Your task to perform on an android device: open app "Microsoft Outlook" Image 0: 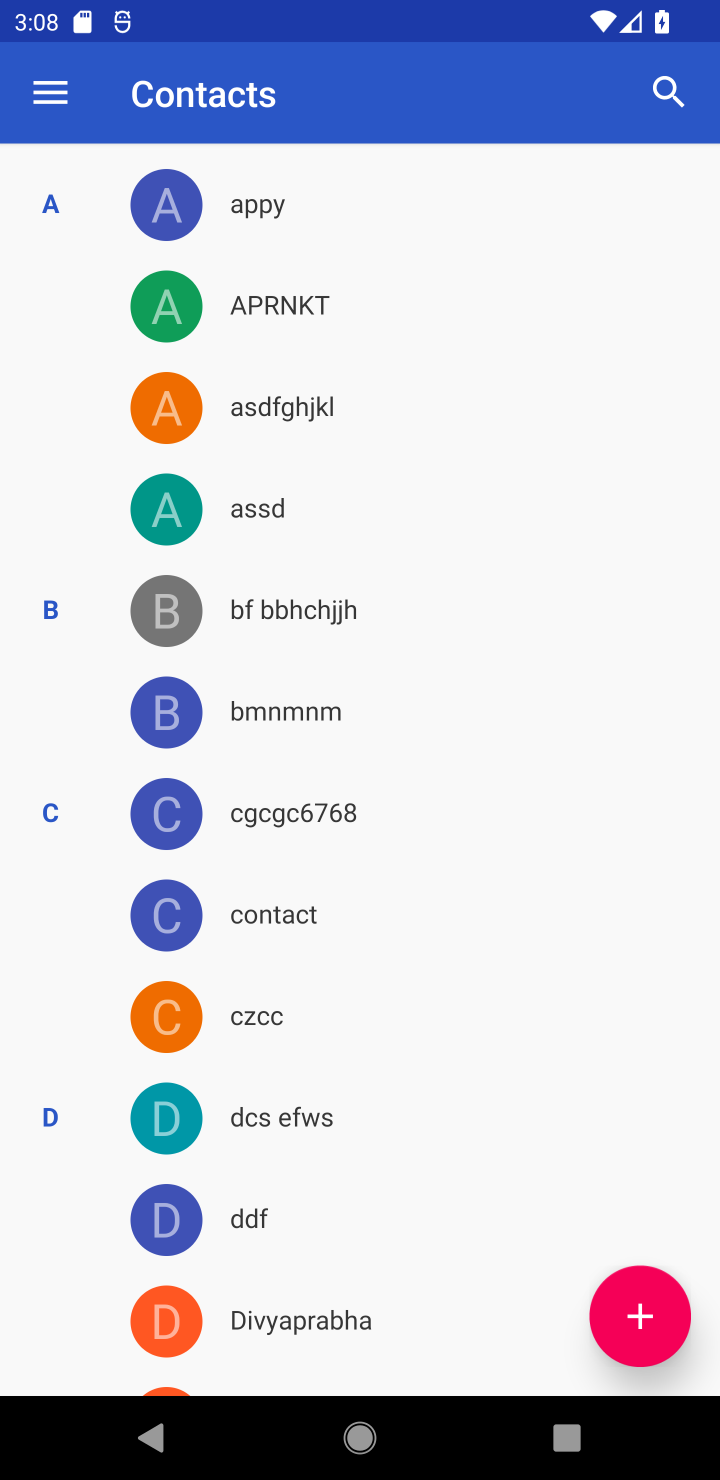
Step 0: press home button
Your task to perform on an android device: open app "Microsoft Outlook" Image 1: 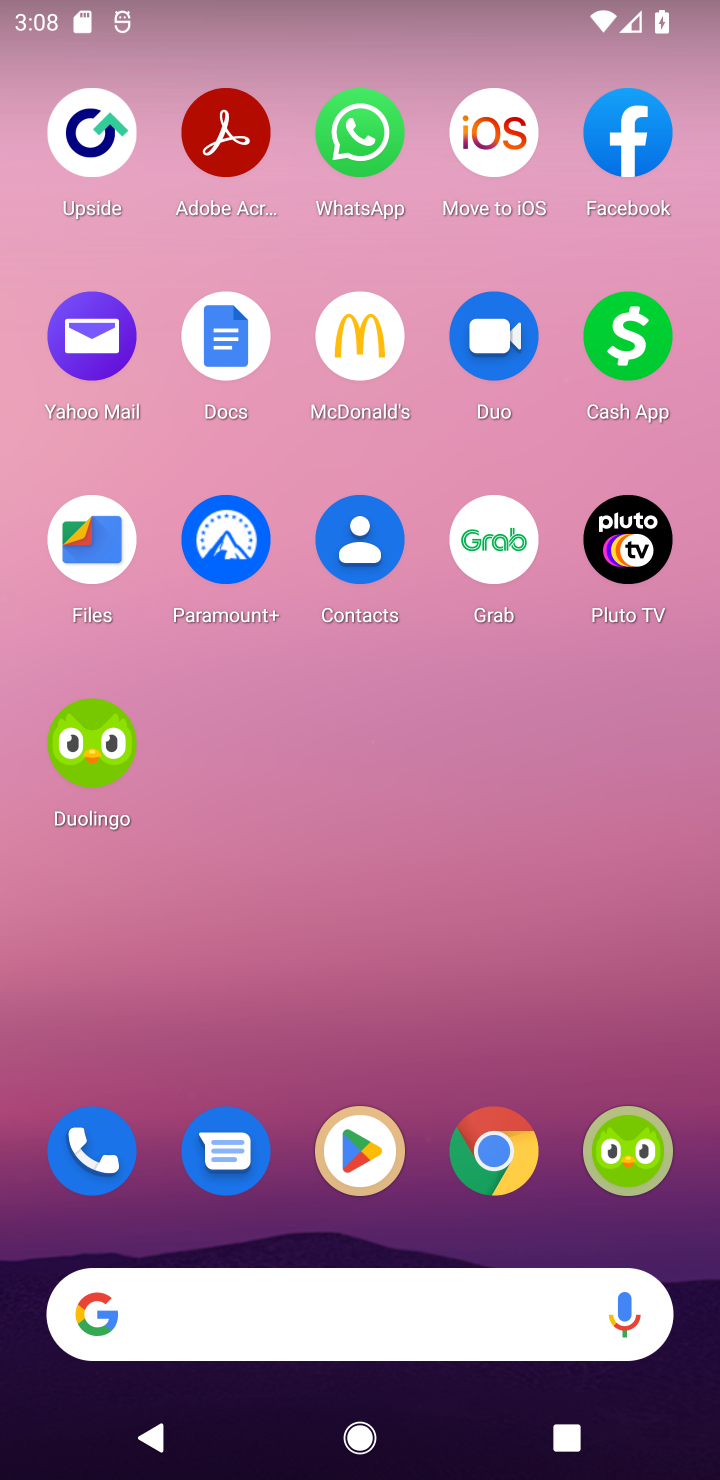
Step 1: click (362, 1201)
Your task to perform on an android device: open app "Microsoft Outlook" Image 2: 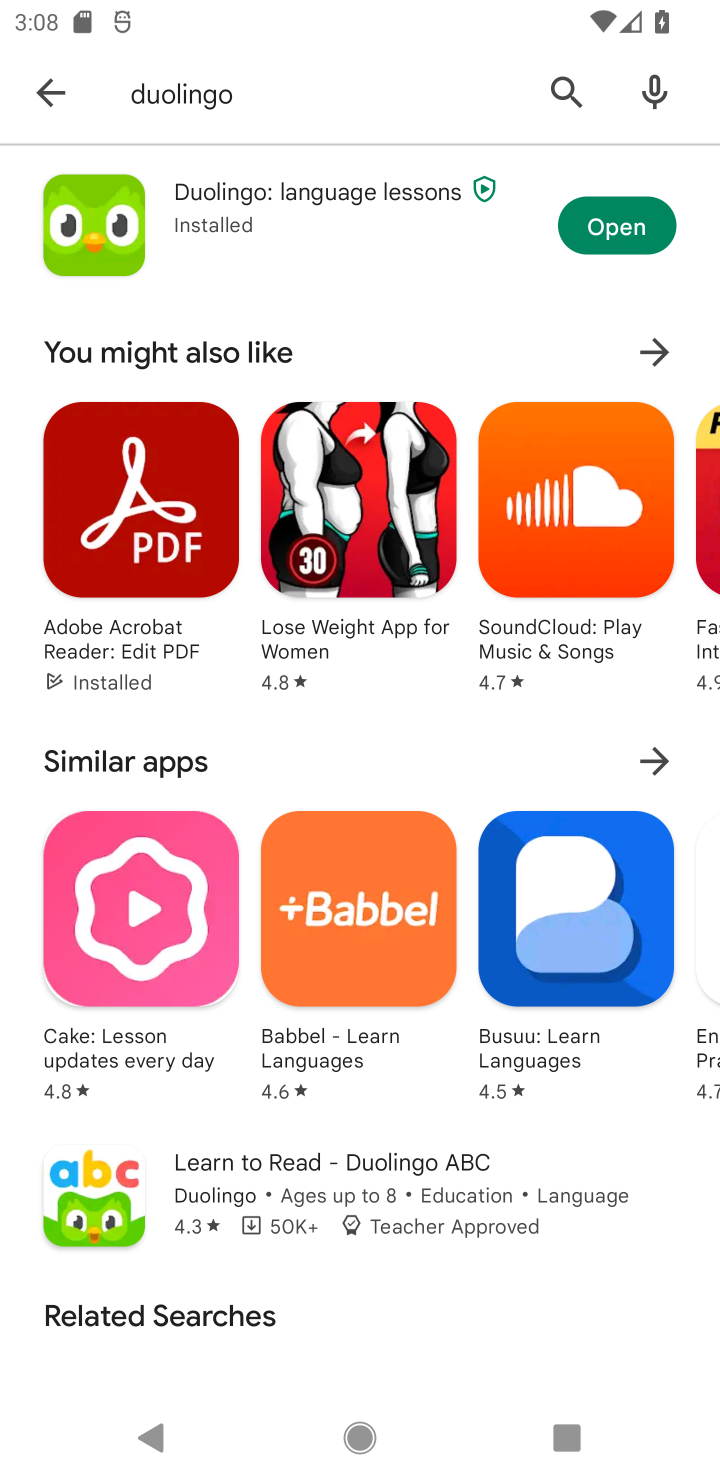
Step 2: click (572, 109)
Your task to perform on an android device: open app "Microsoft Outlook" Image 3: 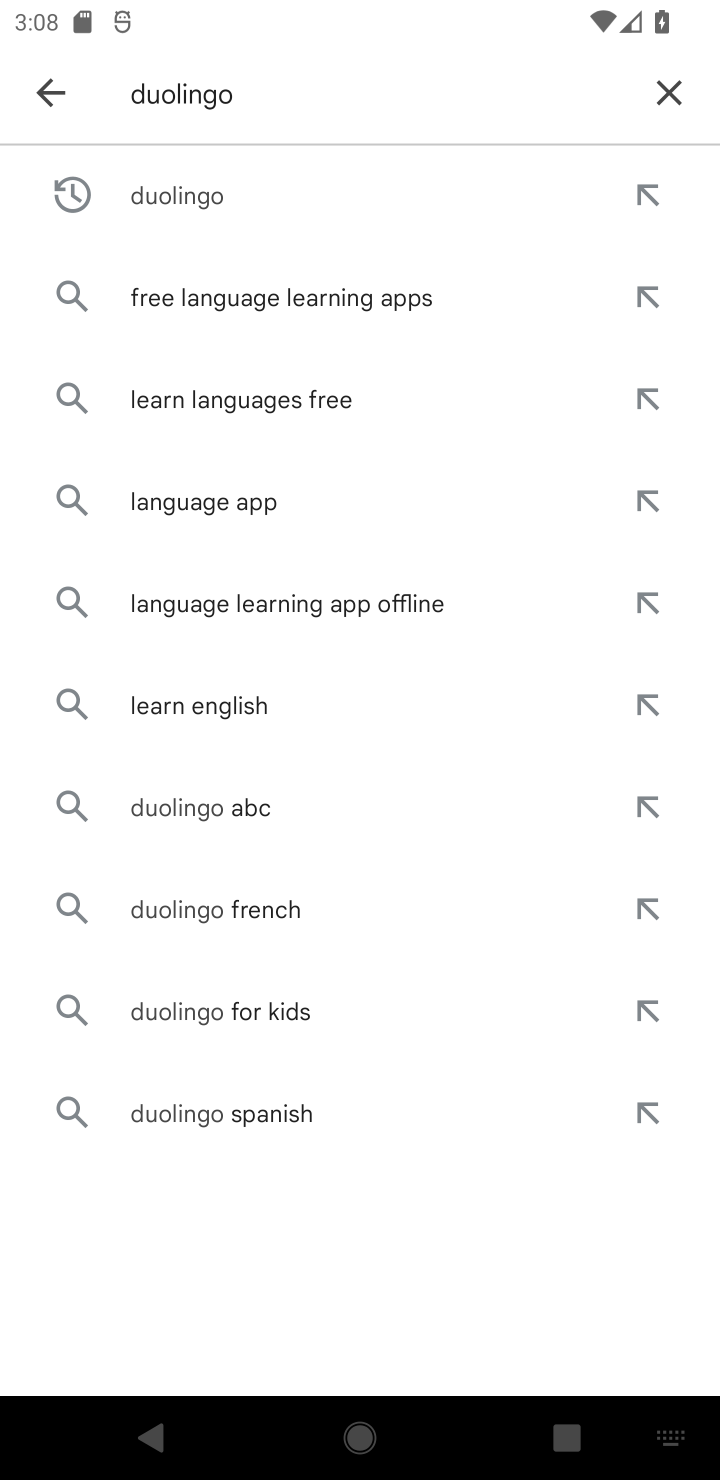
Step 3: click (656, 101)
Your task to perform on an android device: open app "Microsoft Outlook" Image 4: 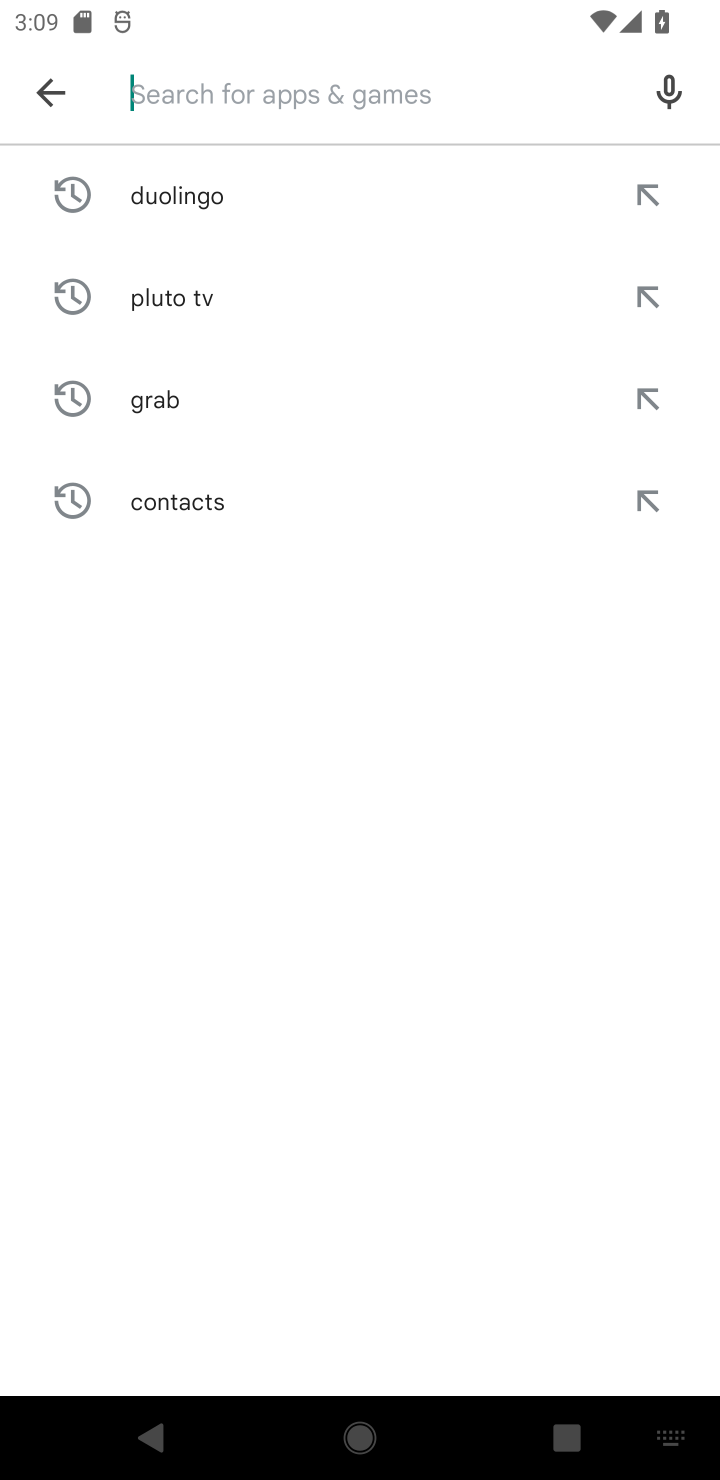
Step 4: type "microsost"
Your task to perform on an android device: open app "Microsoft Outlook" Image 5: 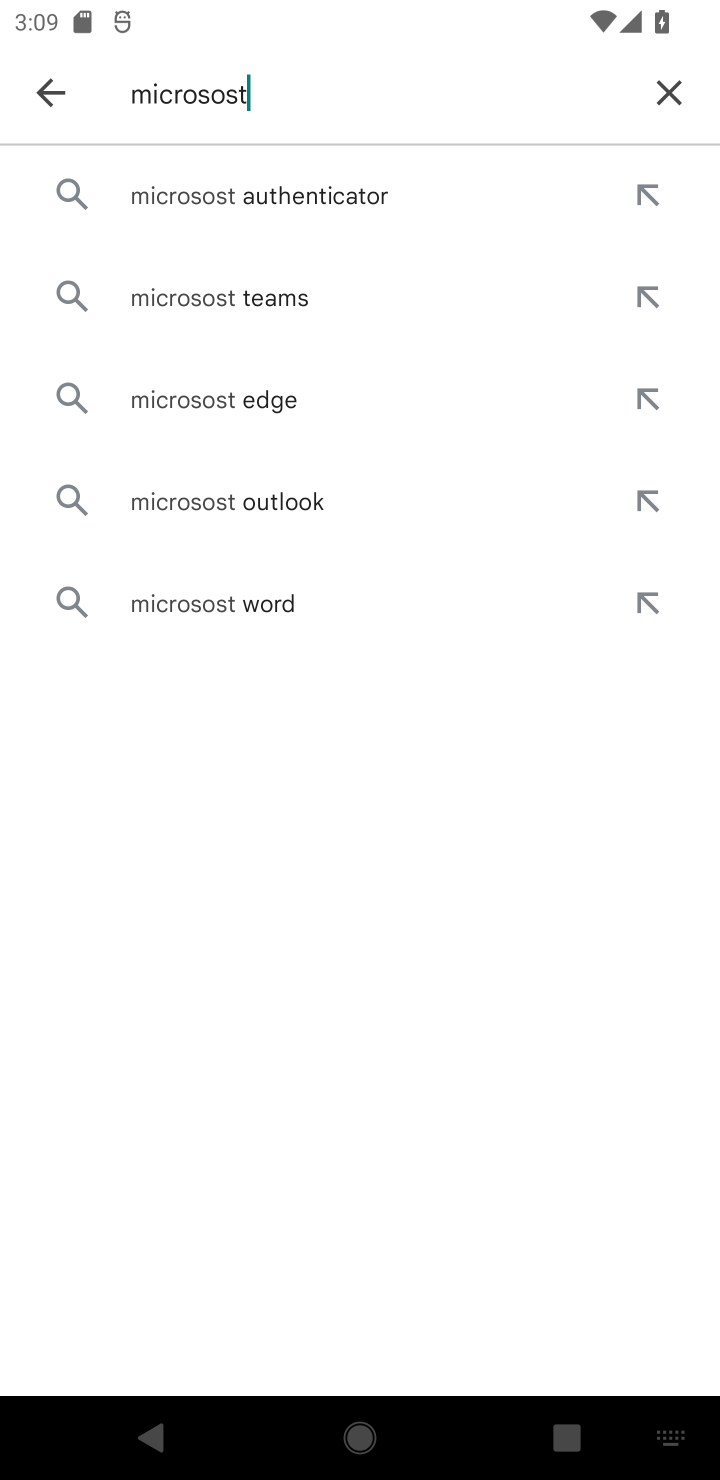
Step 5: click (262, 235)
Your task to perform on an android device: open app "Microsoft Outlook" Image 6: 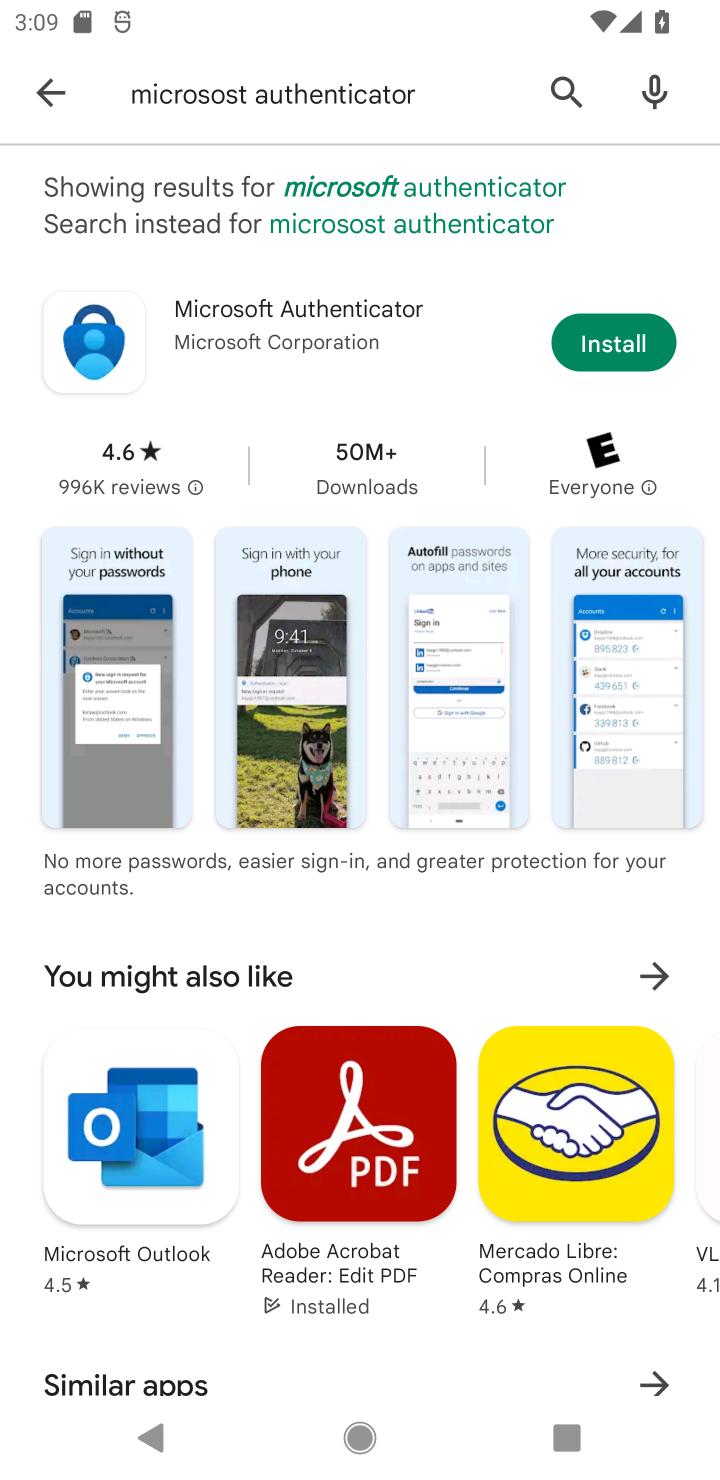
Step 6: click (645, 321)
Your task to perform on an android device: open app "Microsoft Outlook" Image 7: 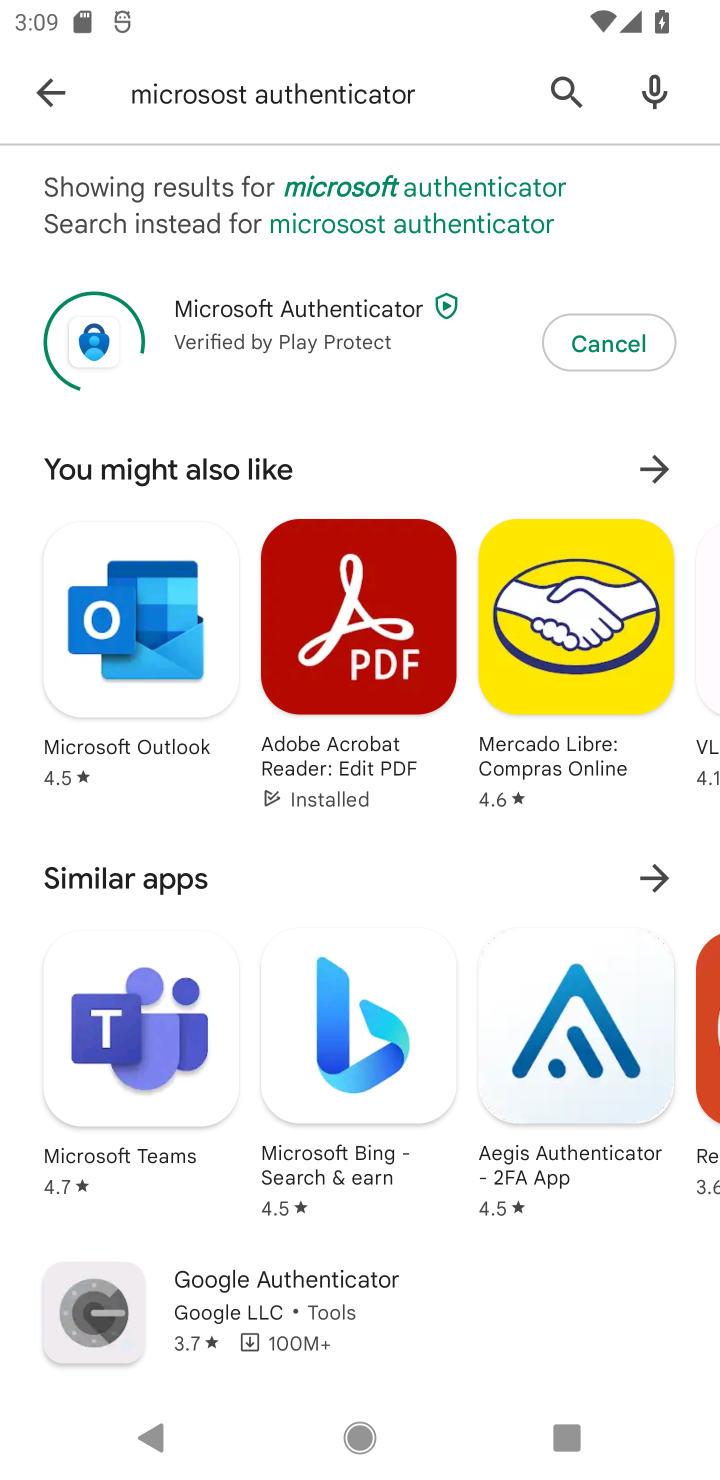
Step 7: task complete